Your task to perform on an android device: Open Yahoo.com Image 0: 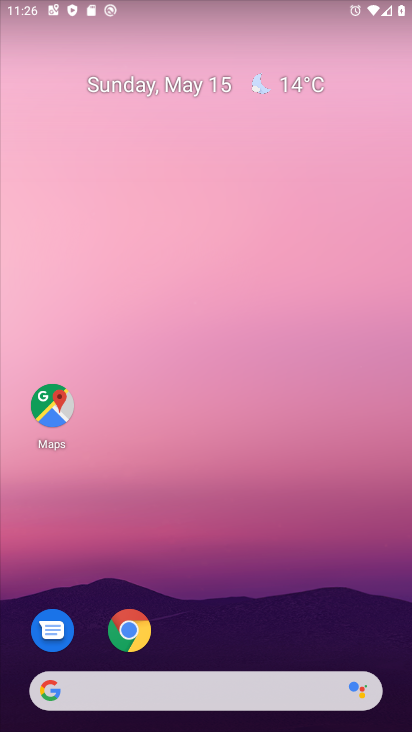
Step 0: click (131, 624)
Your task to perform on an android device: Open Yahoo.com Image 1: 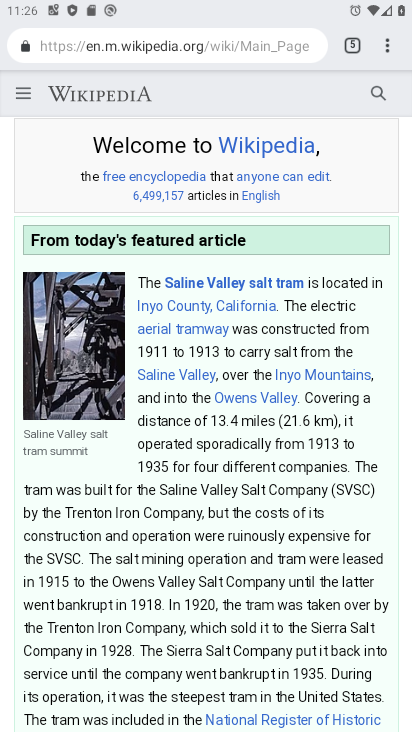
Step 1: click (386, 51)
Your task to perform on an android device: Open Yahoo.com Image 2: 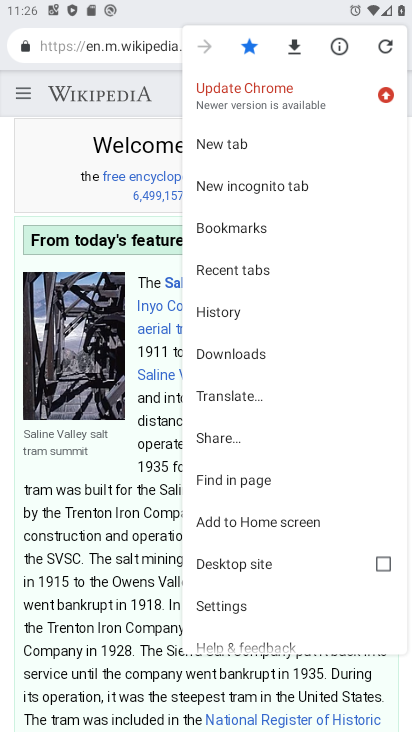
Step 2: click (221, 145)
Your task to perform on an android device: Open Yahoo.com Image 3: 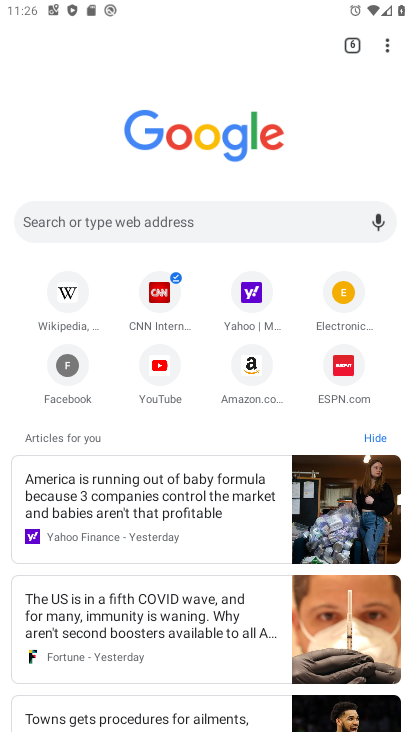
Step 3: click (162, 216)
Your task to perform on an android device: Open Yahoo.com Image 4: 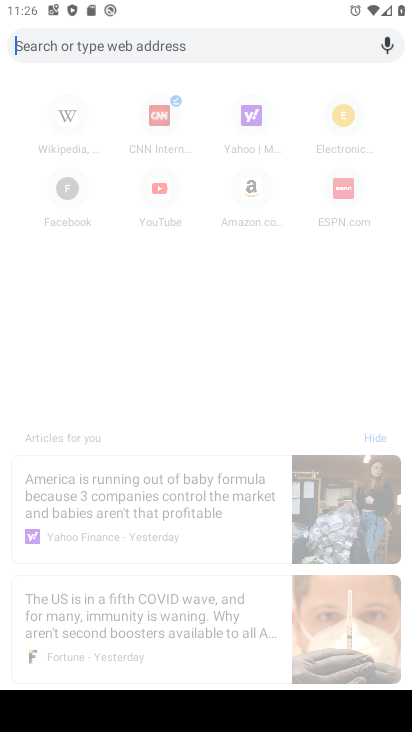
Step 4: type "Yahoo.com"
Your task to perform on an android device: Open Yahoo.com Image 5: 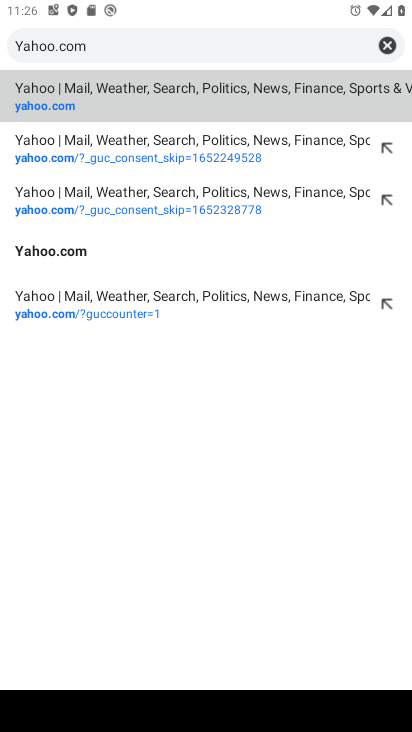
Step 5: click (106, 84)
Your task to perform on an android device: Open Yahoo.com Image 6: 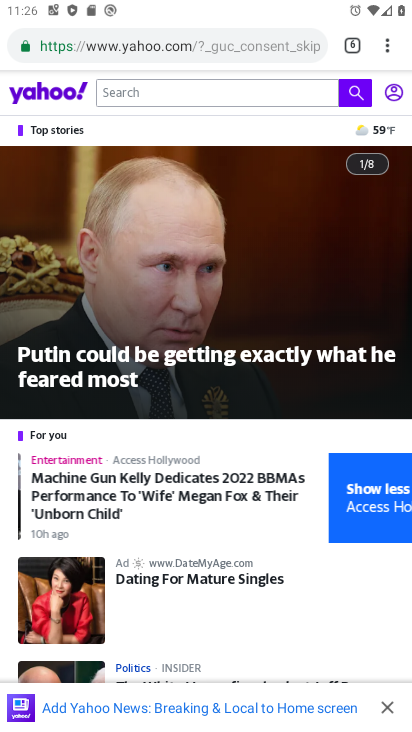
Step 6: task complete